Your task to perform on an android device: Do I have any events today? Image 0: 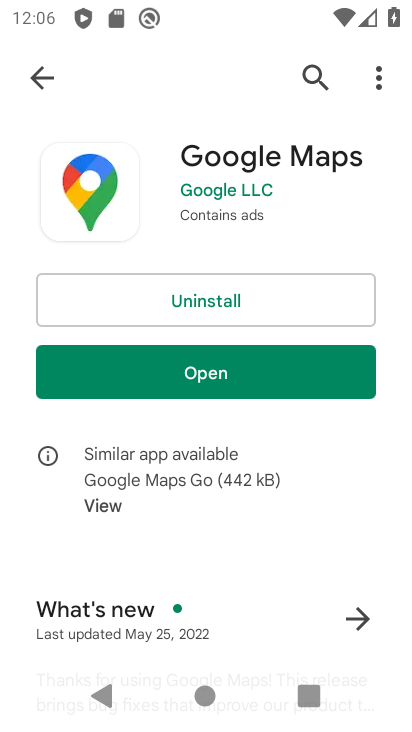
Step 0: press home button
Your task to perform on an android device: Do I have any events today? Image 1: 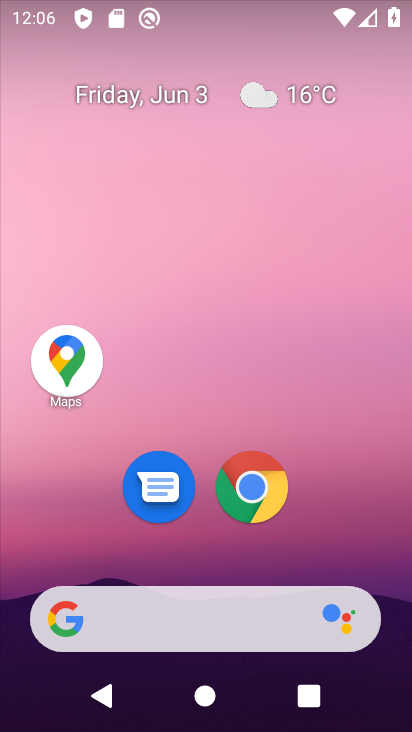
Step 1: drag from (331, 547) to (305, 75)
Your task to perform on an android device: Do I have any events today? Image 2: 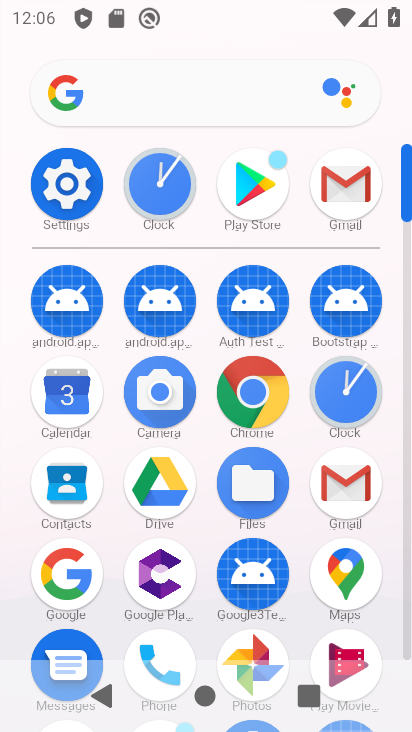
Step 2: click (78, 398)
Your task to perform on an android device: Do I have any events today? Image 3: 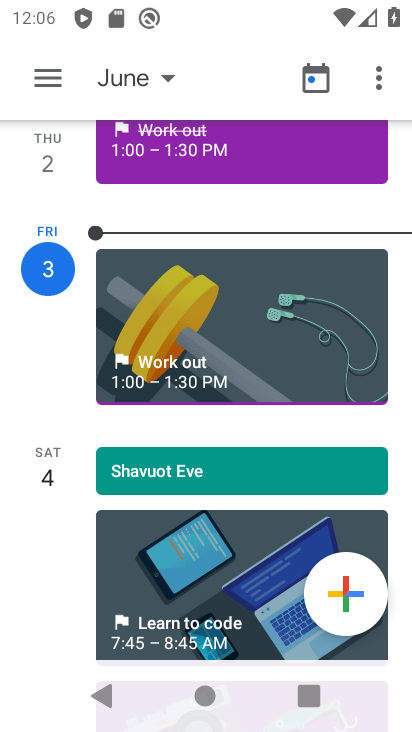
Step 3: task complete